Your task to perform on an android device: Show me popular games on the Play Store Image 0: 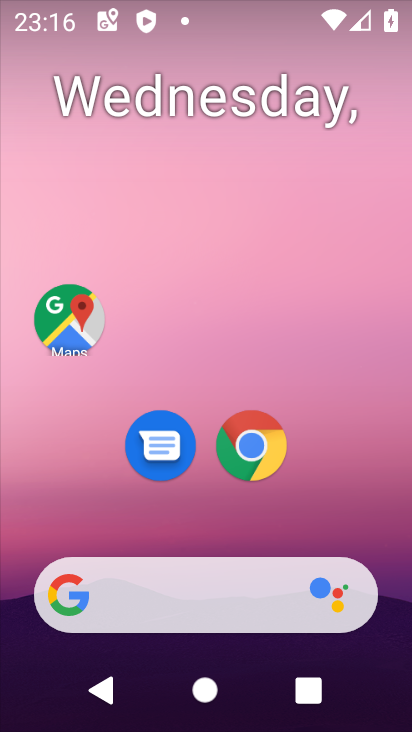
Step 0: drag from (319, 480) to (349, 203)
Your task to perform on an android device: Show me popular games on the Play Store Image 1: 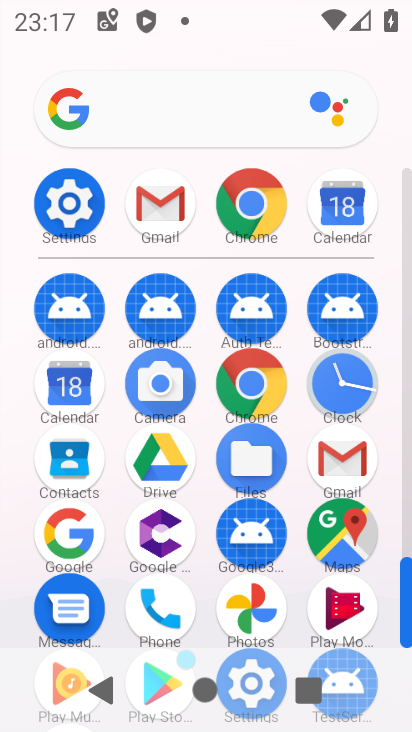
Step 1: drag from (183, 622) to (224, 391)
Your task to perform on an android device: Show me popular games on the Play Store Image 2: 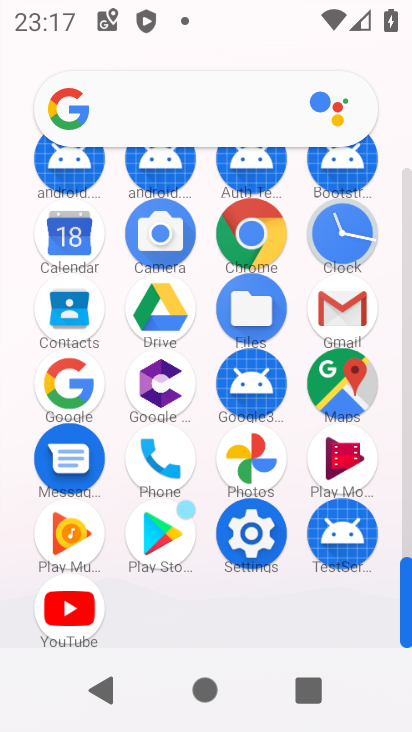
Step 2: click (162, 548)
Your task to perform on an android device: Show me popular games on the Play Store Image 3: 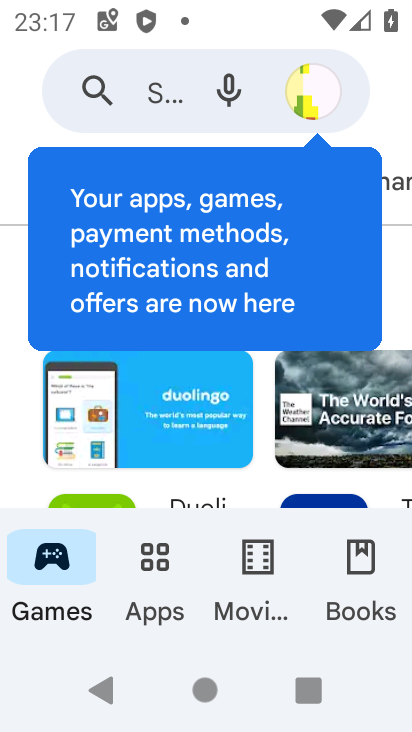
Step 3: task complete